Your task to perform on an android device: turn on priority inbox in the gmail app Image 0: 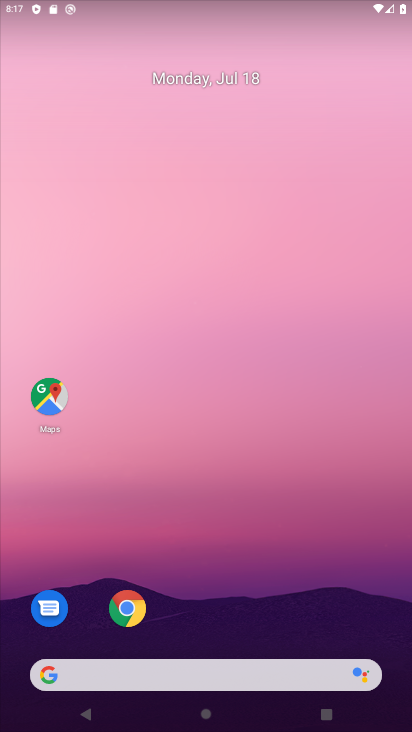
Step 0: drag from (225, 639) to (231, 153)
Your task to perform on an android device: turn on priority inbox in the gmail app Image 1: 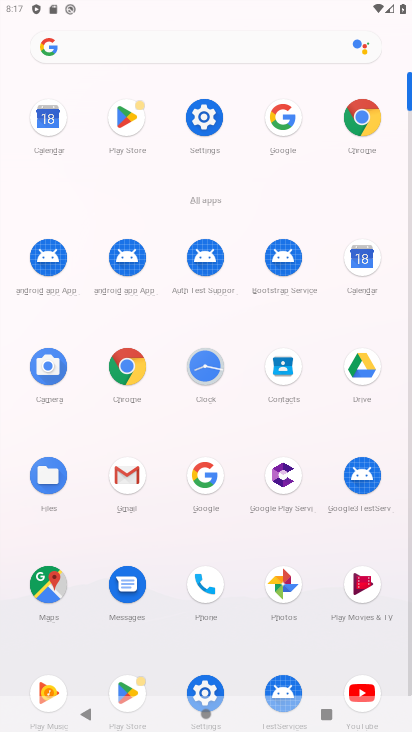
Step 1: click (136, 473)
Your task to perform on an android device: turn on priority inbox in the gmail app Image 2: 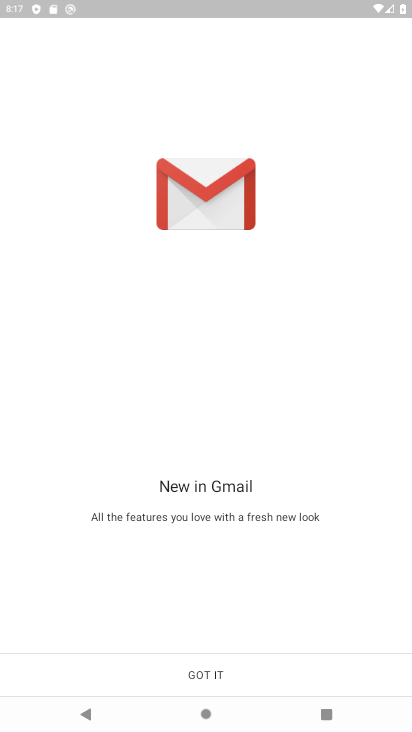
Step 2: click (218, 668)
Your task to perform on an android device: turn on priority inbox in the gmail app Image 3: 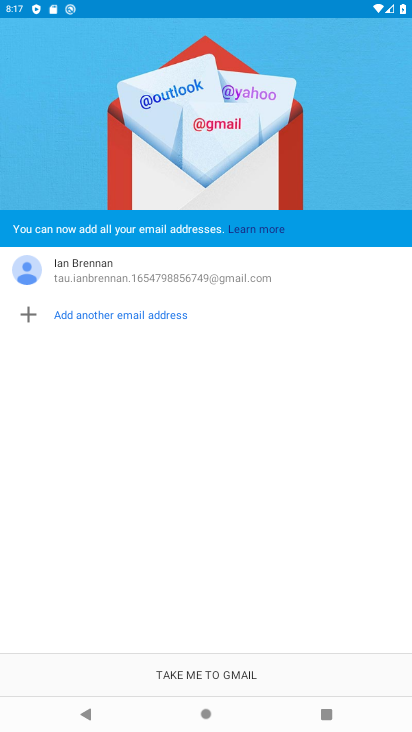
Step 3: click (205, 667)
Your task to perform on an android device: turn on priority inbox in the gmail app Image 4: 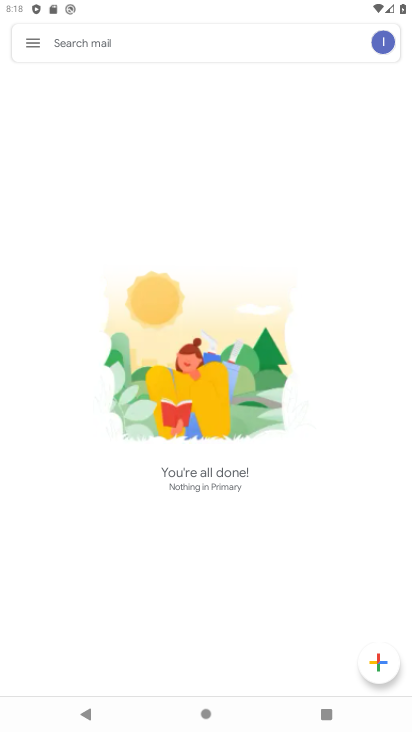
Step 4: click (26, 37)
Your task to perform on an android device: turn on priority inbox in the gmail app Image 5: 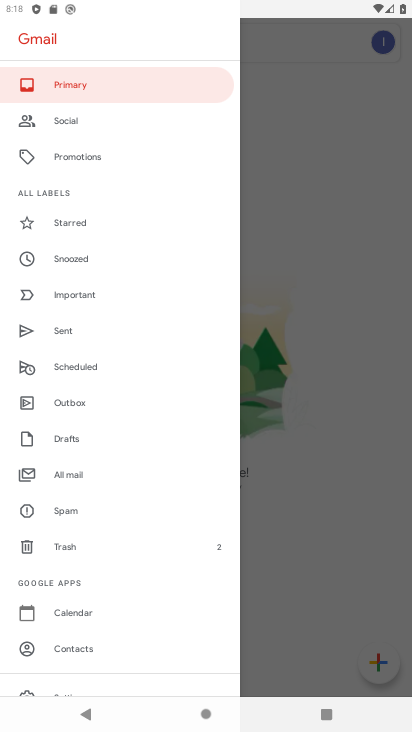
Step 5: drag from (108, 684) to (171, 358)
Your task to perform on an android device: turn on priority inbox in the gmail app Image 6: 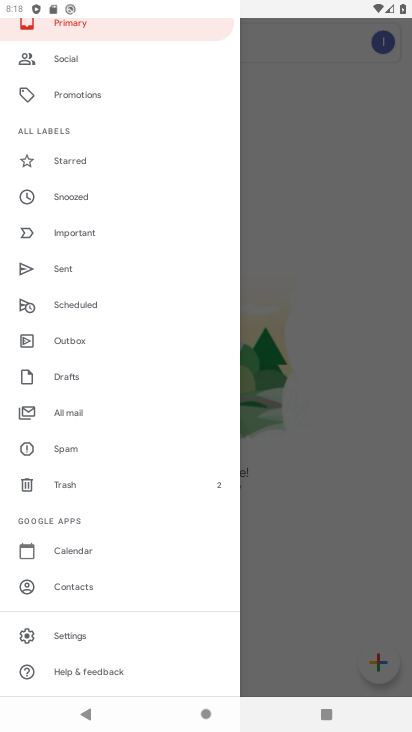
Step 6: click (66, 633)
Your task to perform on an android device: turn on priority inbox in the gmail app Image 7: 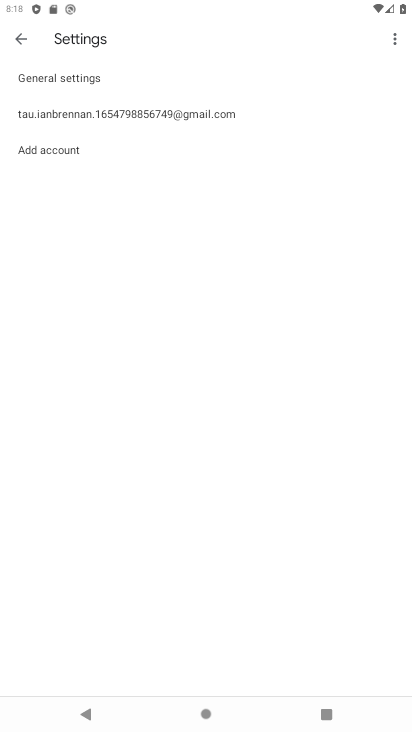
Step 7: click (107, 111)
Your task to perform on an android device: turn on priority inbox in the gmail app Image 8: 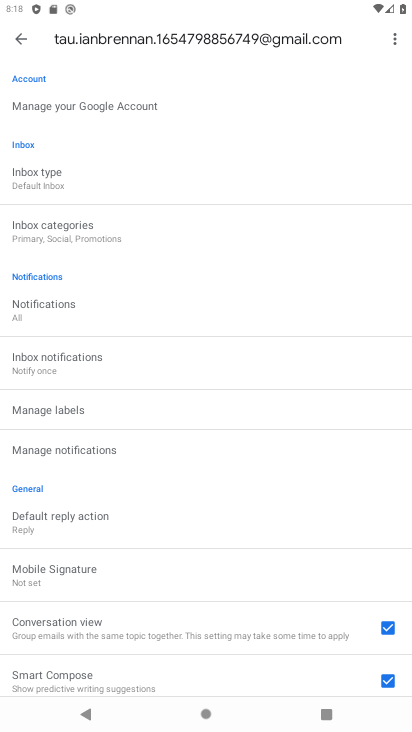
Step 8: click (50, 179)
Your task to perform on an android device: turn on priority inbox in the gmail app Image 9: 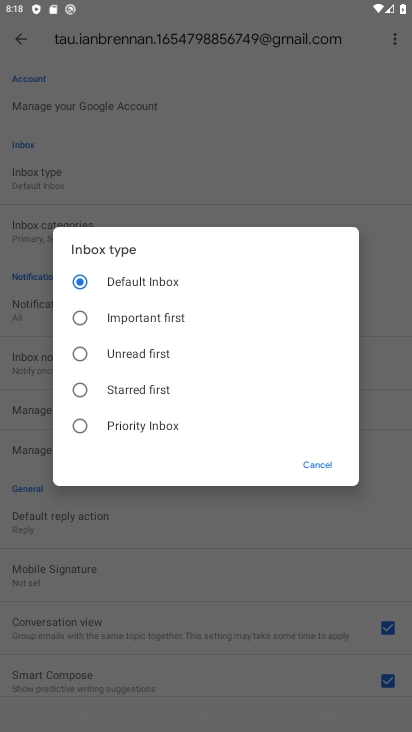
Step 9: click (119, 429)
Your task to perform on an android device: turn on priority inbox in the gmail app Image 10: 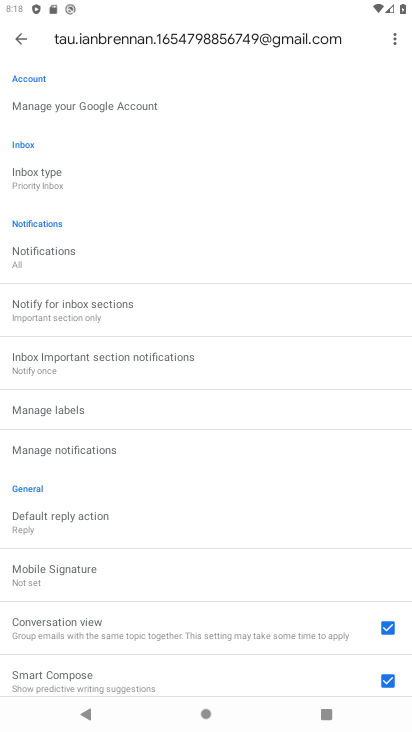
Step 10: task complete